Your task to perform on an android device: change the clock display to analog Image 0: 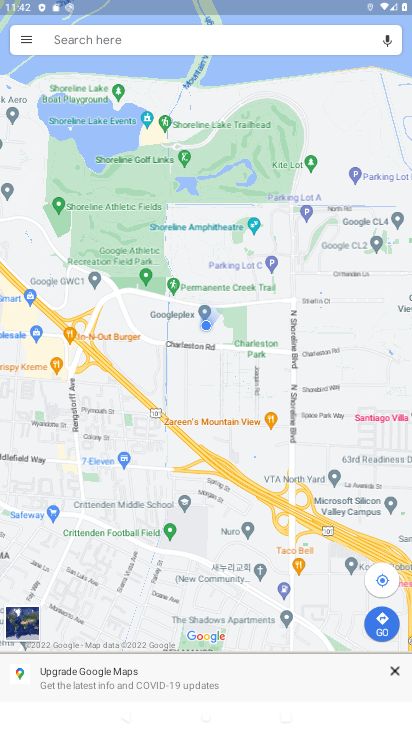
Step 0: press home button
Your task to perform on an android device: change the clock display to analog Image 1: 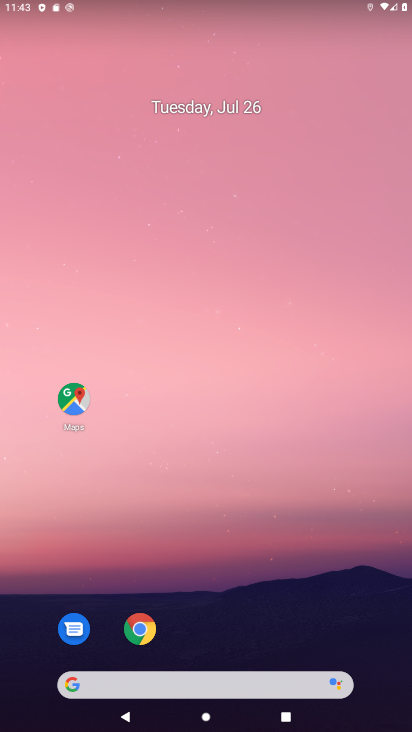
Step 1: drag from (221, 728) to (209, 485)
Your task to perform on an android device: change the clock display to analog Image 2: 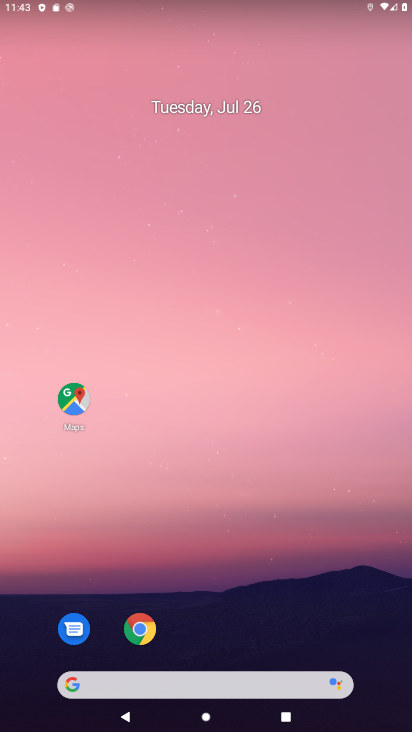
Step 2: drag from (234, 726) to (314, 4)
Your task to perform on an android device: change the clock display to analog Image 3: 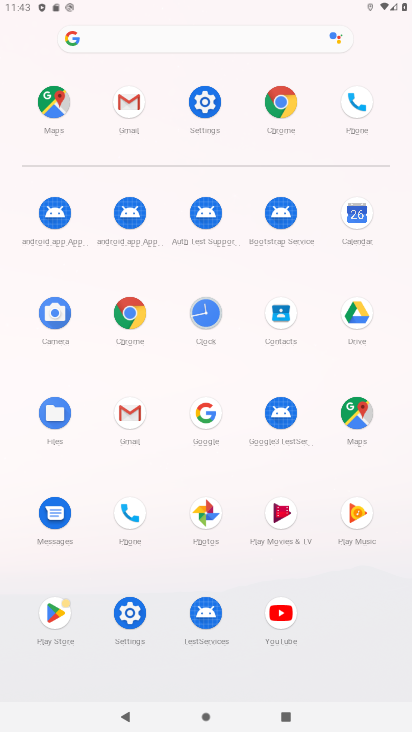
Step 3: click (205, 314)
Your task to perform on an android device: change the clock display to analog Image 4: 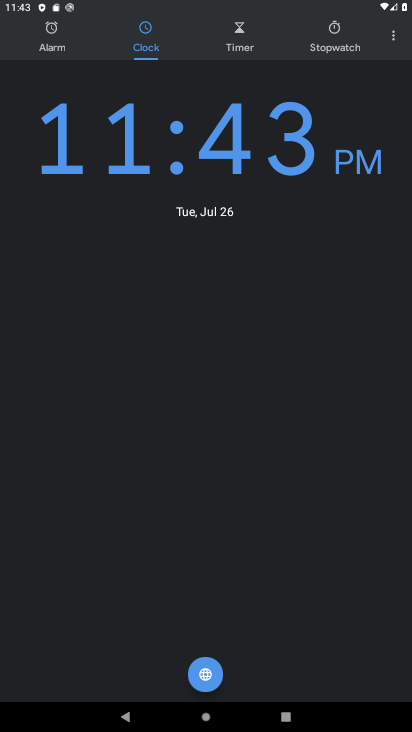
Step 4: click (398, 43)
Your task to perform on an android device: change the clock display to analog Image 5: 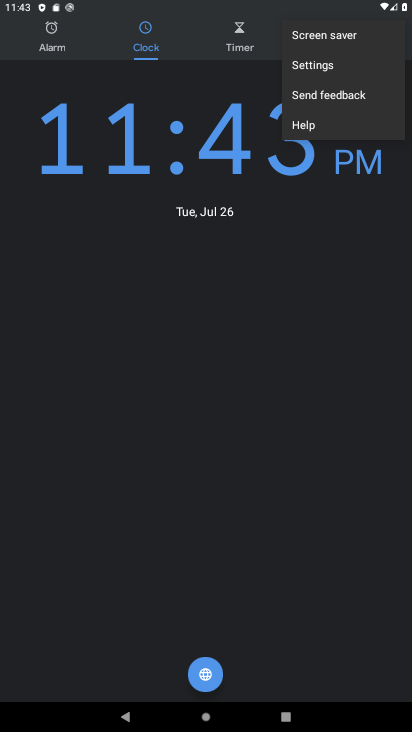
Step 5: click (319, 65)
Your task to perform on an android device: change the clock display to analog Image 6: 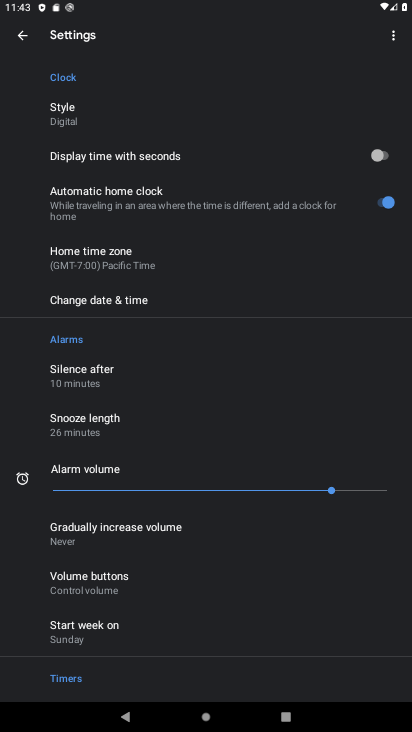
Step 6: click (63, 118)
Your task to perform on an android device: change the clock display to analog Image 7: 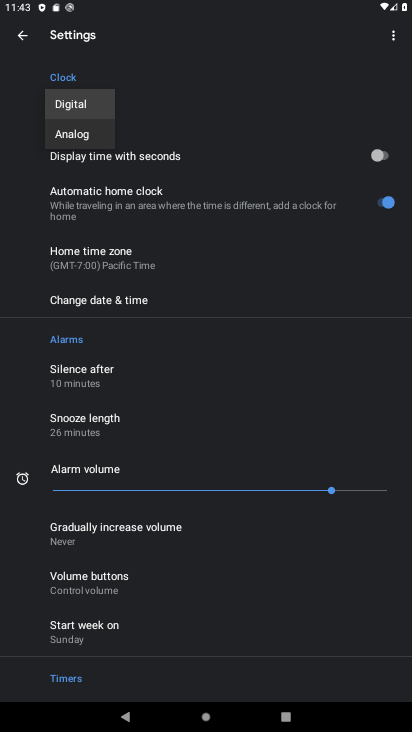
Step 7: click (82, 143)
Your task to perform on an android device: change the clock display to analog Image 8: 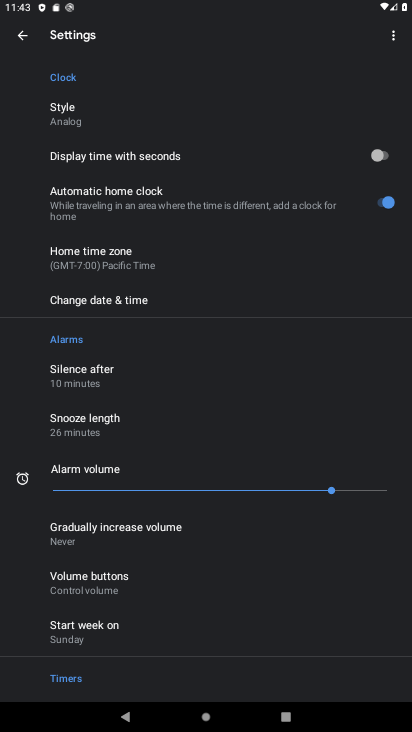
Step 8: task complete